Your task to perform on an android device: Open Google Chrome and open the bookmarks view Image 0: 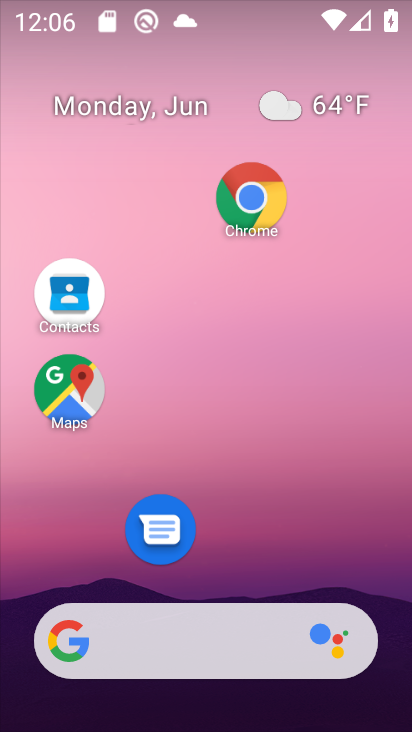
Step 0: click (257, 175)
Your task to perform on an android device: Open Google Chrome and open the bookmarks view Image 1: 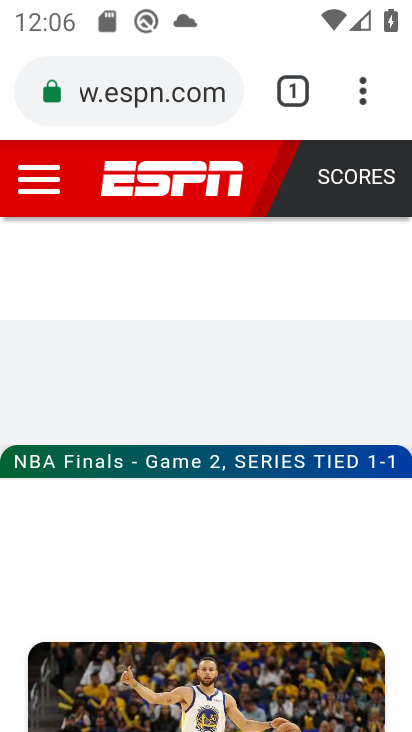
Step 1: click (369, 87)
Your task to perform on an android device: Open Google Chrome and open the bookmarks view Image 2: 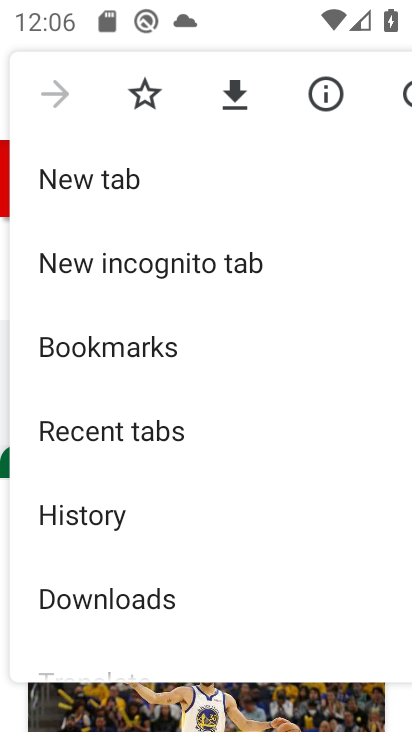
Step 2: click (83, 354)
Your task to perform on an android device: Open Google Chrome and open the bookmarks view Image 3: 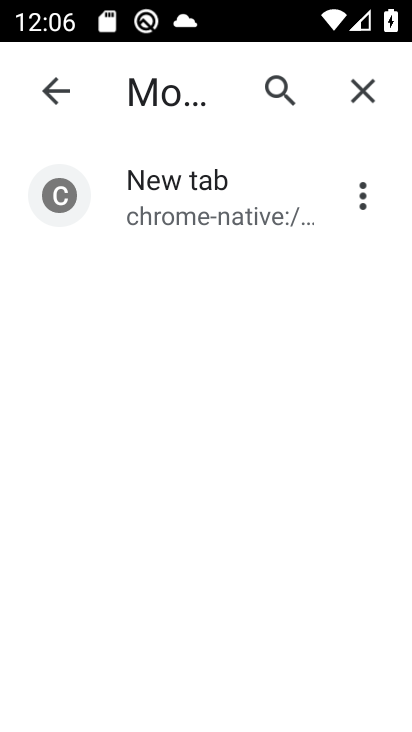
Step 3: task complete